Your task to perform on an android device: search for starred emails in the gmail app Image 0: 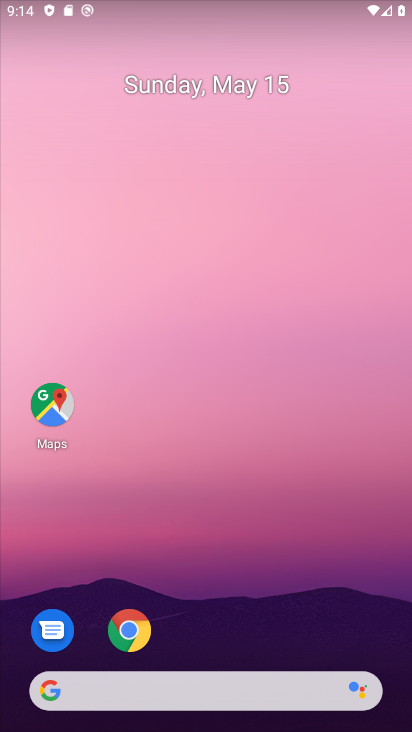
Step 0: drag from (270, 592) to (231, 5)
Your task to perform on an android device: search for starred emails in the gmail app Image 1: 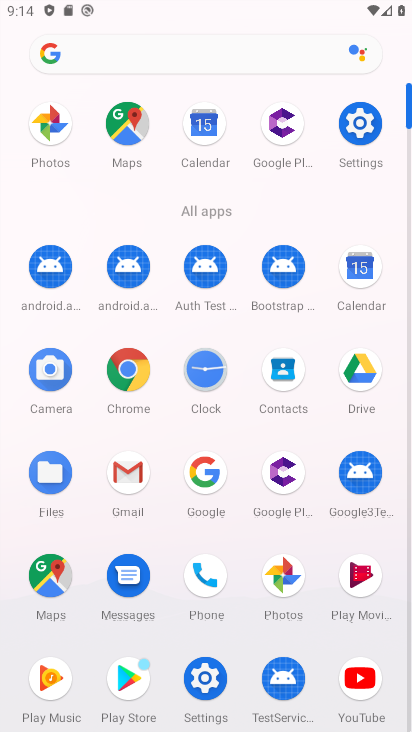
Step 1: click (138, 484)
Your task to perform on an android device: search for starred emails in the gmail app Image 2: 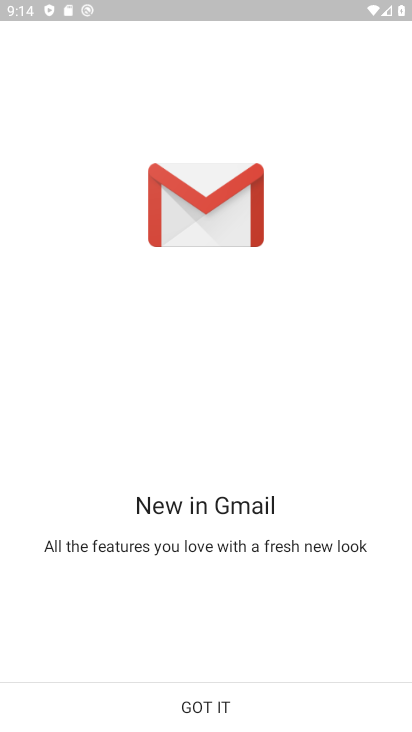
Step 2: click (346, 718)
Your task to perform on an android device: search for starred emails in the gmail app Image 3: 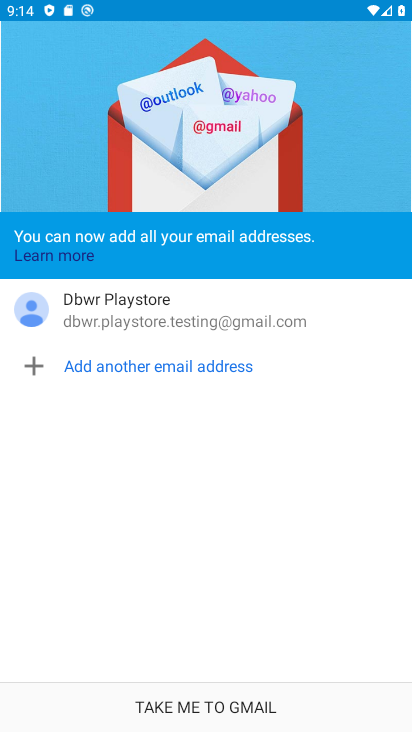
Step 3: click (264, 704)
Your task to perform on an android device: search for starred emails in the gmail app Image 4: 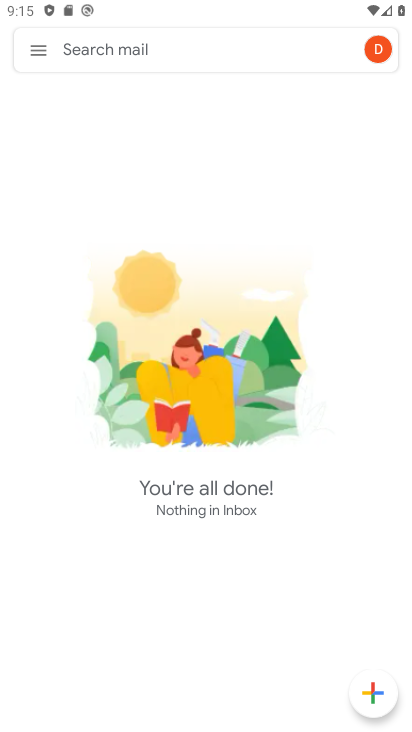
Step 4: click (51, 20)
Your task to perform on an android device: search for starred emails in the gmail app Image 5: 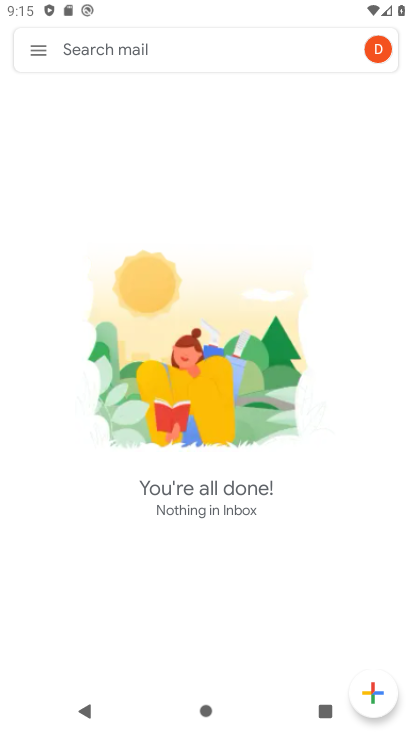
Step 5: click (39, 41)
Your task to perform on an android device: search for starred emails in the gmail app Image 6: 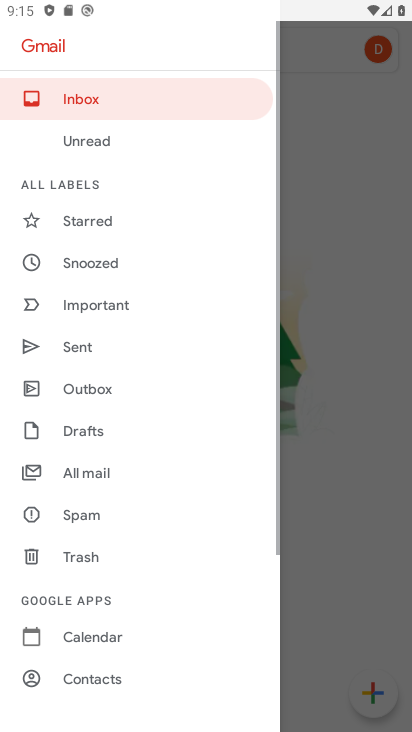
Step 6: click (39, 41)
Your task to perform on an android device: search for starred emails in the gmail app Image 7: 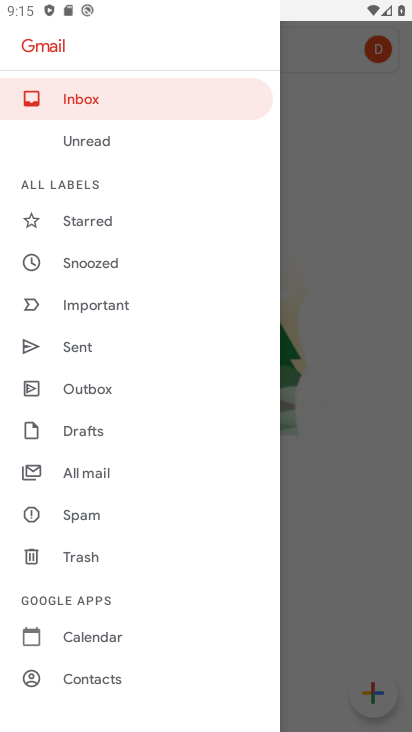
Step 7: click (123, 219)
Your task to perform on an android device: search for starred emails in the gmail app Image 8: 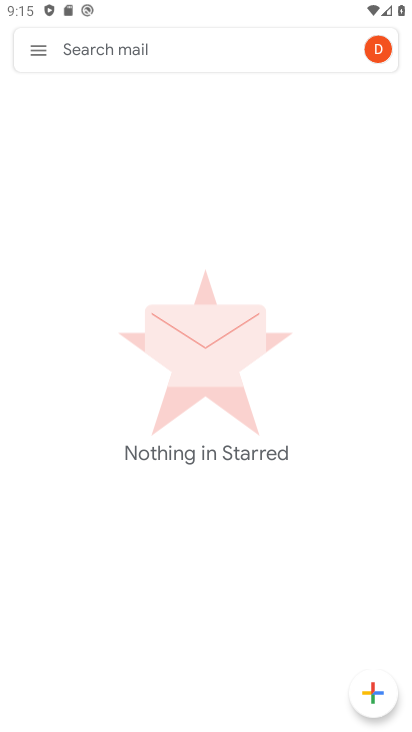
Step 8: task complete